Your task to perform on an android device: turn off airplane mode Image 0: 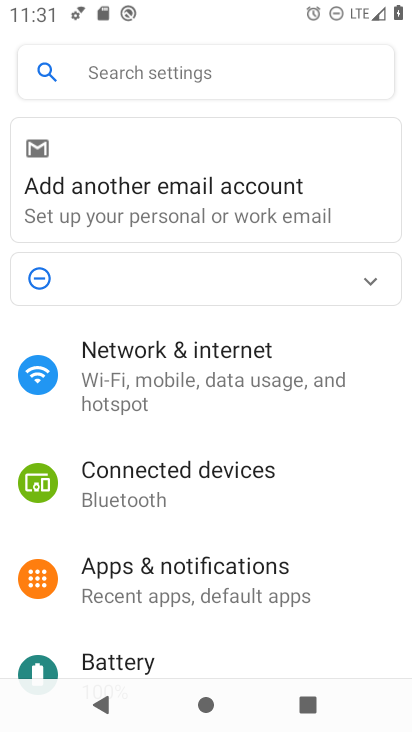
Step 0: click (259, 378)
Your task to perform on an android device: turn off airplane mode Image 1: 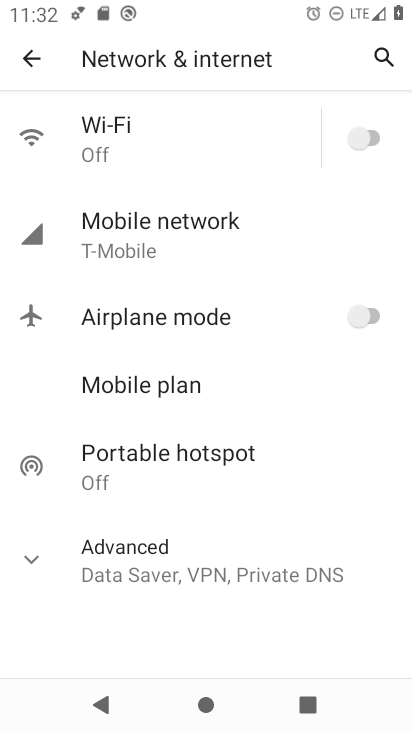
Step 1: click (31, 553)
Your task to perform on an android device: turn off airplane mode Image 2: 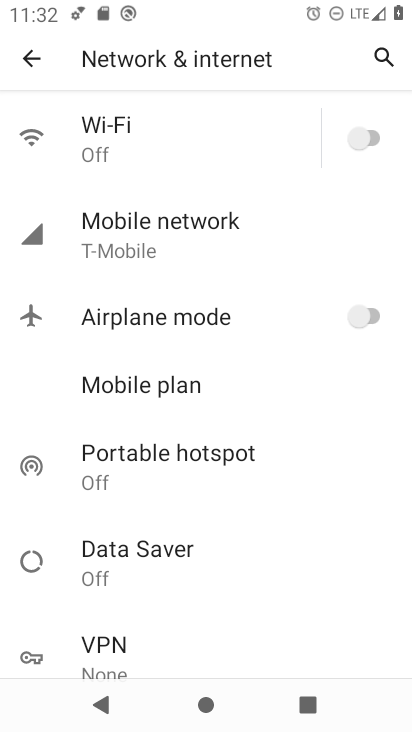
Step 2: task complete